Your task to perform on an android device: check battery use Image 0: 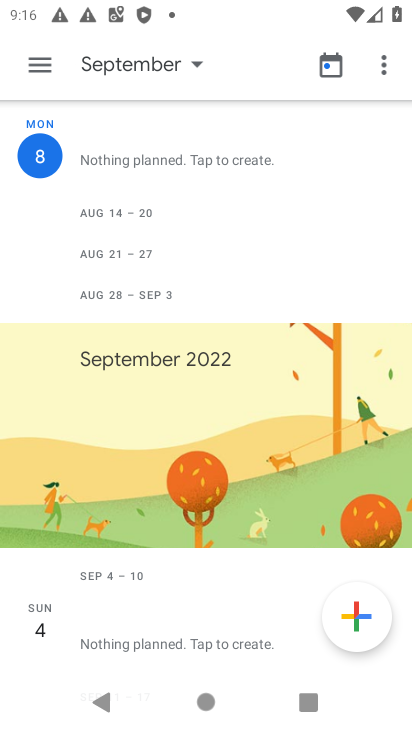
Step 0: press home button
Your task to perform on an android device: check battery use Image 1: 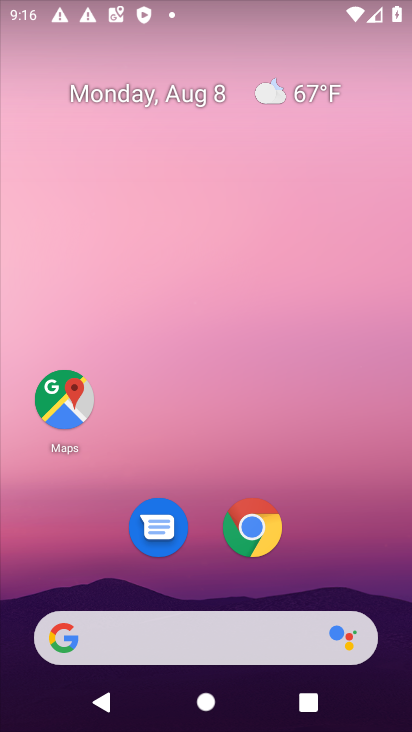
Step 1: drag from (391, 702) to (338, 125)
Your task to perform on an android device: check battery use Image 2: 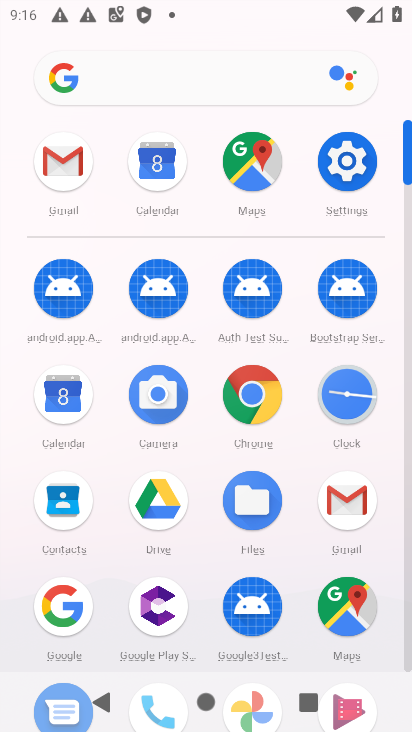
Step 2: click (348, 173)
Your task to perform on an android device: check battery use Image 3: 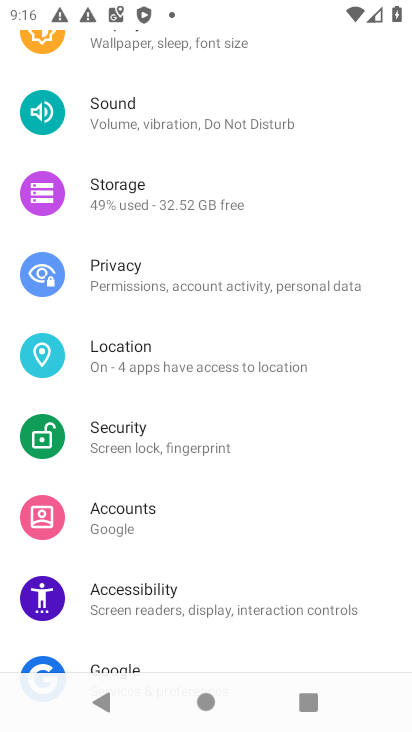
Step 3: drag from (226, 162) to (267, 562)
Your task to perform on an android device: check battery use Image 4: 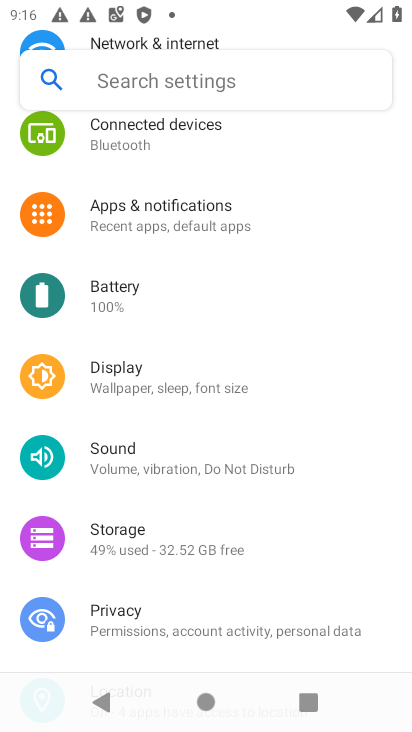
Step 4: click (97, 284)
Your task to perform on an android device: check battery use Image 5: 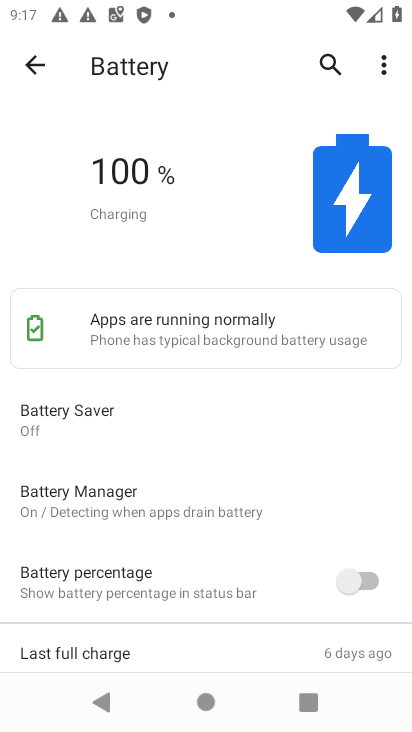
Step 5: click (382, 58)
Your task to perform on an android device: check battery use Image 6: 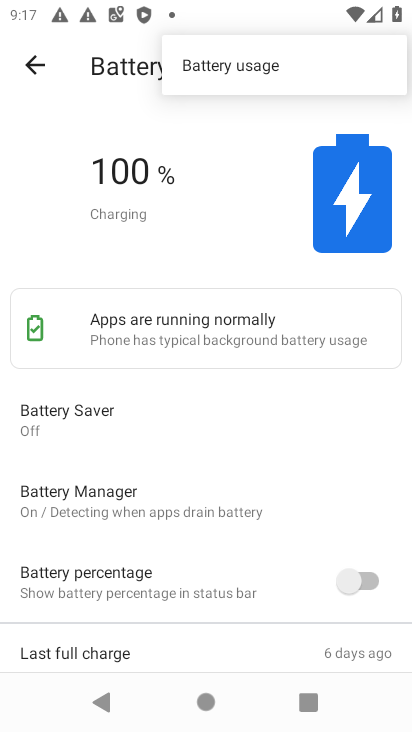
Step 6: click (268, 67)
Your task to perform on an android device: check battery use Image 7: 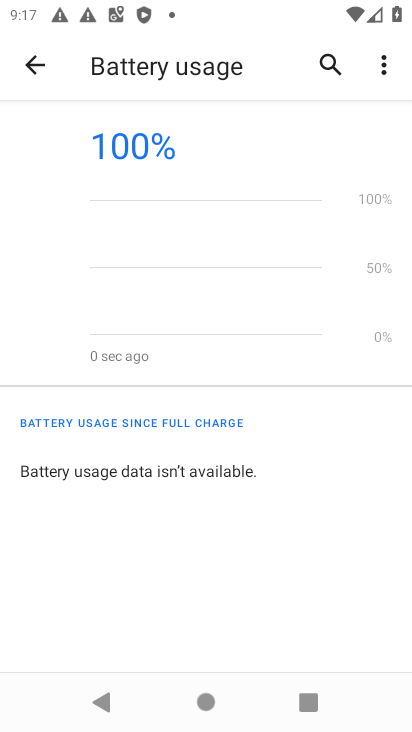
Step 7: task complete